Your task to perform on an android device: turn on sleep mode Image 0: 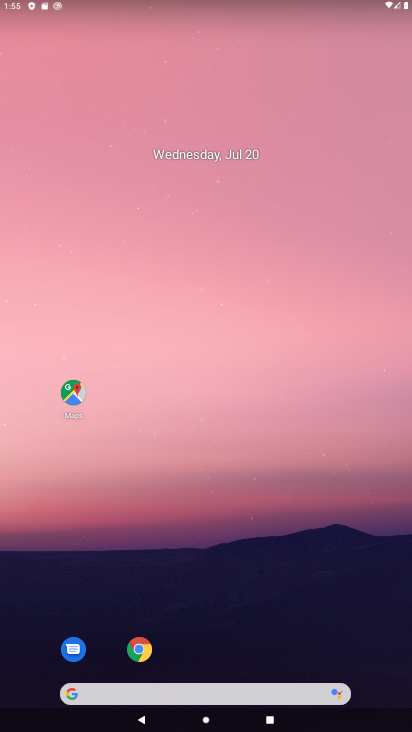
Step 0: drag from (229, 584) to (229, 267)
Your task to perform on an android device: turn on sleep mode Image 1: 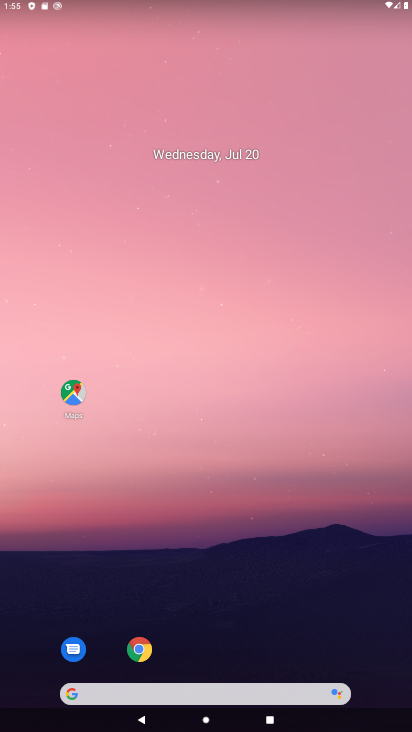
Step 1: drag from (311, 555) to (206, 88)
Your task to perform on an android device: turn on sleep mode Image 2: 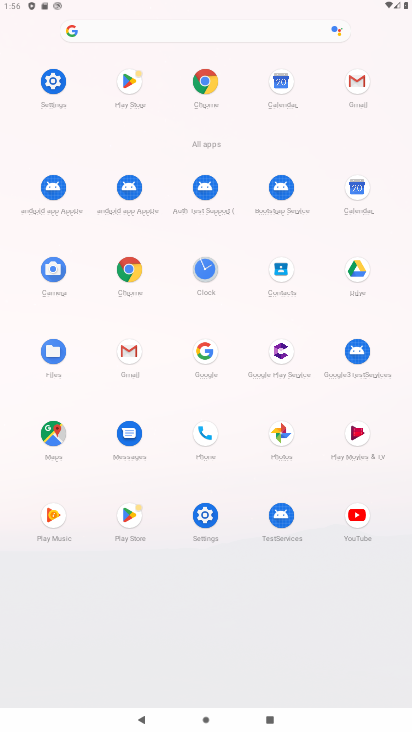
Step 2: drag from (255, 1) to (309, 647)
Your task to perform on an android device: turn on sleep mode Image 3: 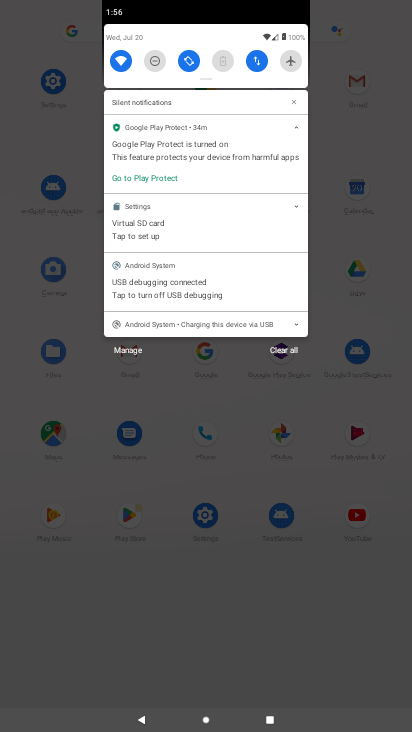
Step 3: drag from (272, 75) to (293, 256)
Your task to perform on an android device: turn on sleep mode Image 4: 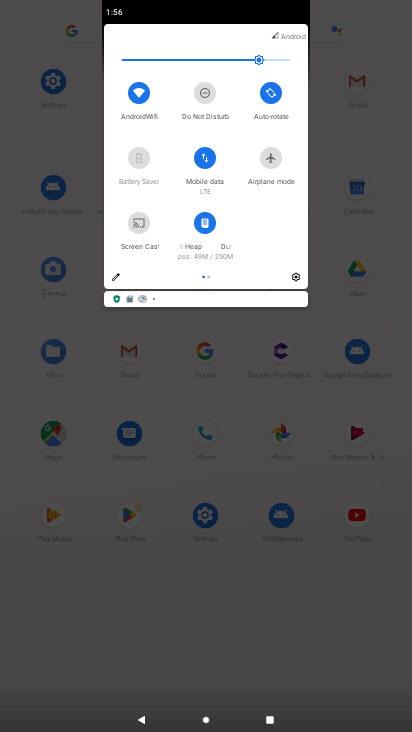
Step 4: click (214, 687)
Your task to perform on an android device: turn on sleep mode Image 5: 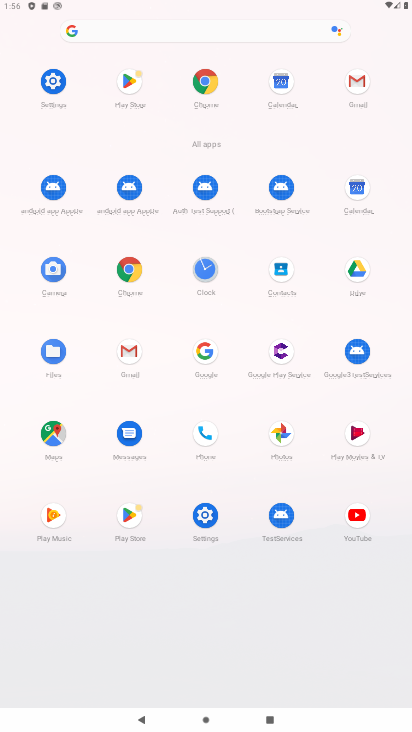
Step 5: task complete